Your task to perform on an android device: Open my contact list Image 0: 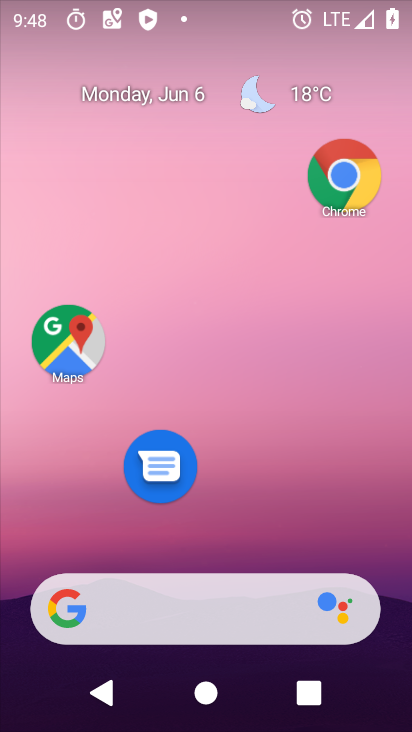
Step 0: drag from (211, 208) to (200, 1)
Your task to perform on an android device: Open my contact list Image 1: 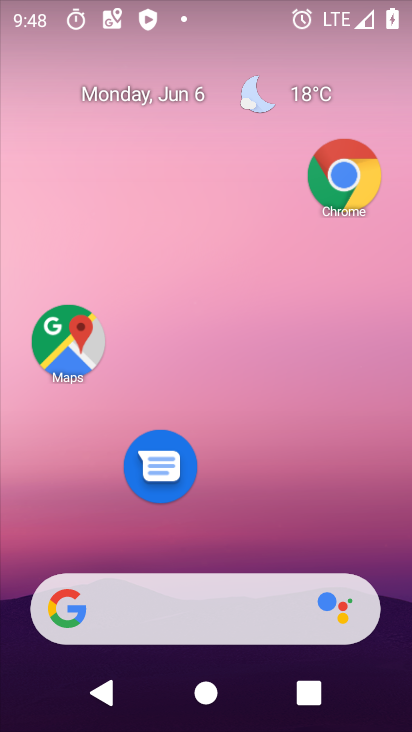
Step 1: drag from (227, 500) to (265, 114)
Your task to perform on an android device: Open my contact list Image 2: 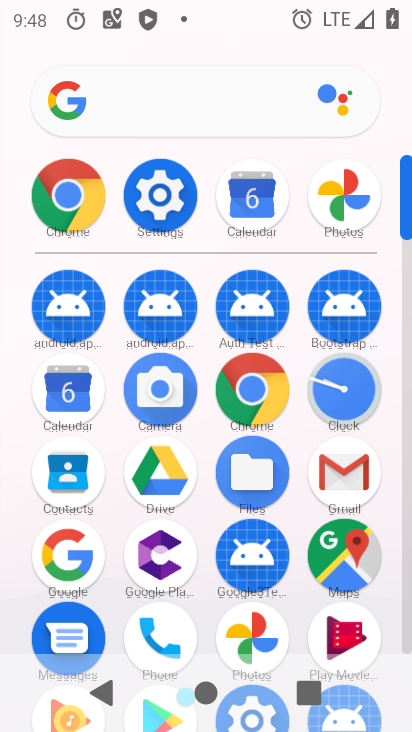
Step 2: click (62, 482)
Your task to perform on an android device: Open my contact list Image 3: 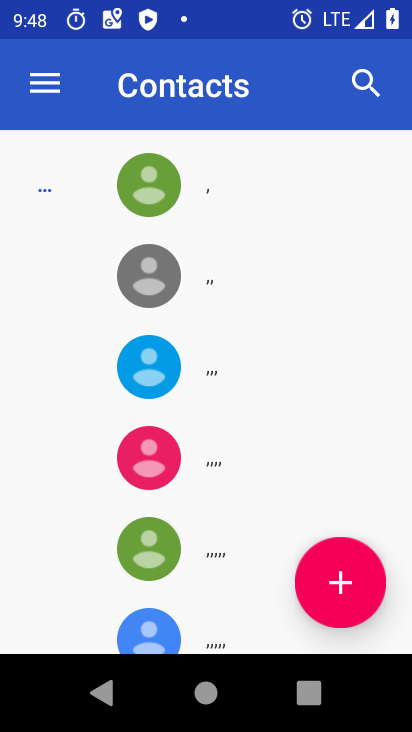
Step 3: task complete